Your task to perform on an android device: Turn on the flashlight Image 0: 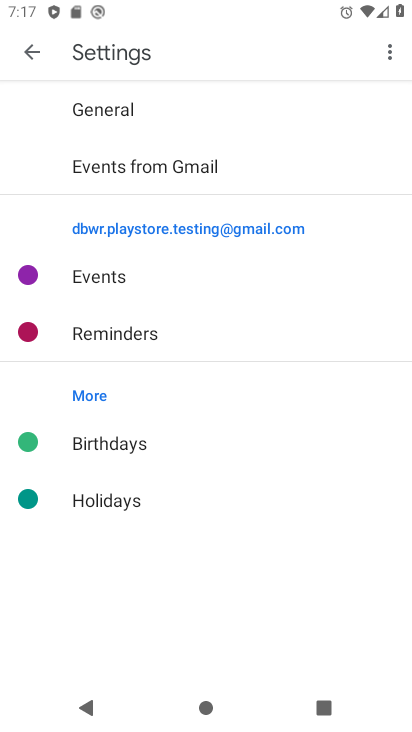
Step 0: drag from (266, 17) to (235, 480)
Your task to perform on an android device: Turn on the flashlight Image 1: 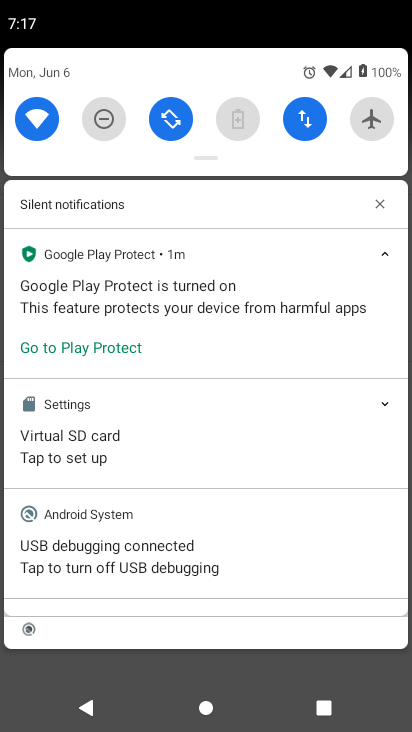
Step 1: task complete